Your task to perform on an android device: turn pop-ups off in chrome Image 0: 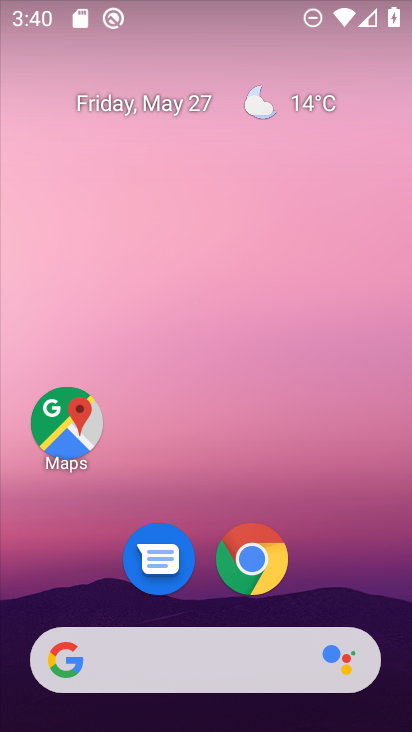
Step 0: drag from (338, 591) to (296, 141)
Your task to perform on an android device: turn pop-ups off in chrome Image 1: 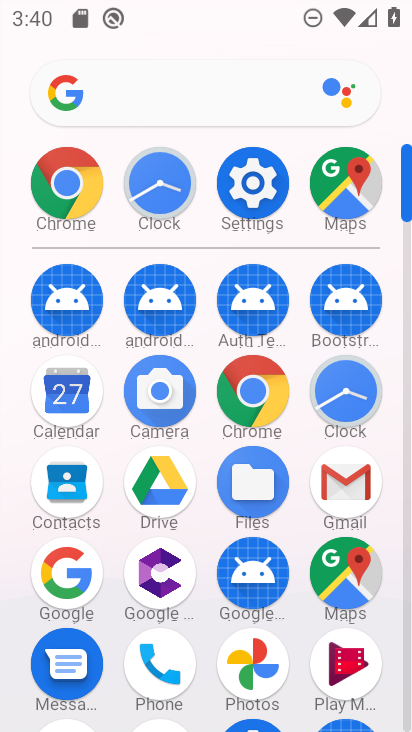
Step 1: click (41, 199)
Your task to perform on an android device: turn pop-ups off in chrome Image 2: 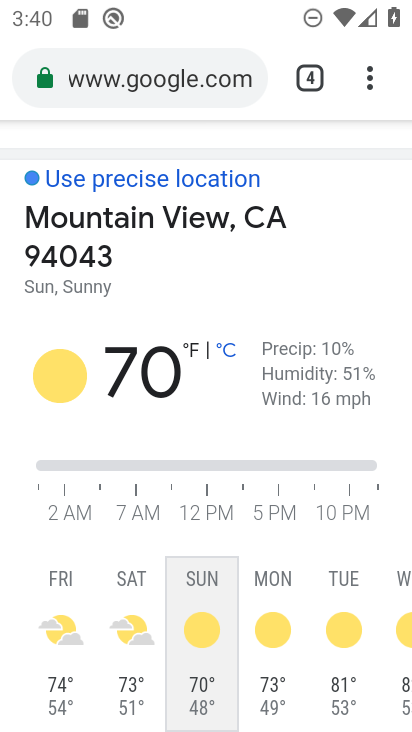
Step 2: click (376, 79)
Your task to perform on an android device: turn pop-ups off in chrome Image 3: 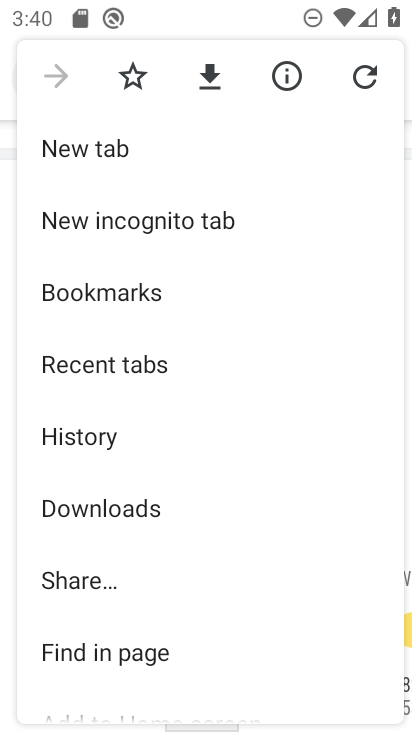
Step 3: drag from (211, 573) to (282, 229)
Your task to perform on an android device: turn pop-ups off in chrome Image 4: 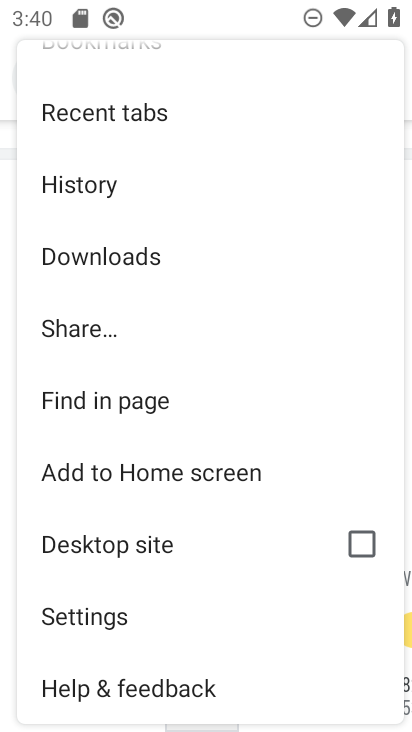
Step 4: click (103, 621)
Your task to perform on an android device: turn pop-ups off in chrome Image 5: 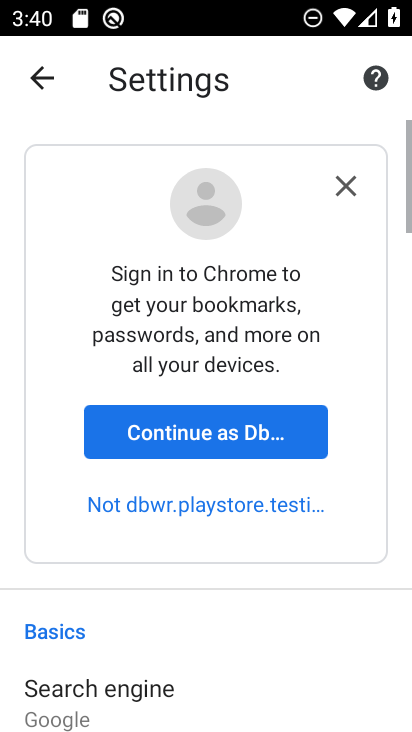
Step 5: drag from (272, 675) to (272, 249)
Your task to perform on an android device: turn pop-ups off in chrome Image 6: 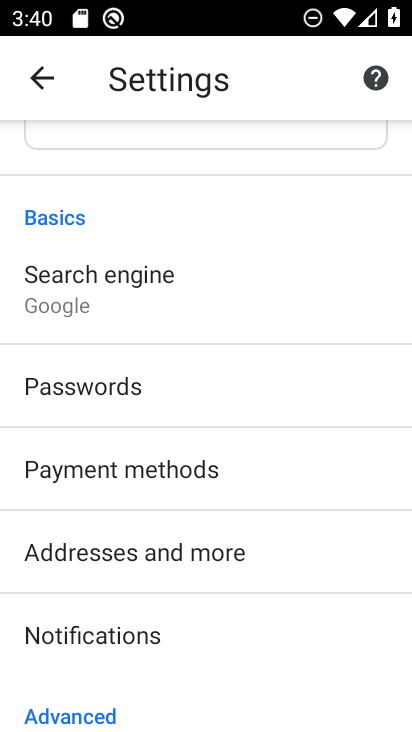
Step 6: drag from (275, 668) to (266, 210)
Your task to perform on an android device: turn pop-ups off in chrome Image 7: 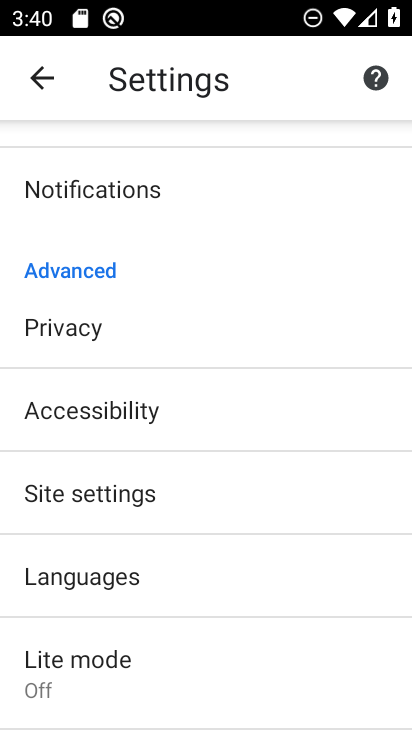
Step 7: drag from (211, 652) to (237, 192)
Your task to perform on an android device: turn pop-ups off in chrome Image 8: 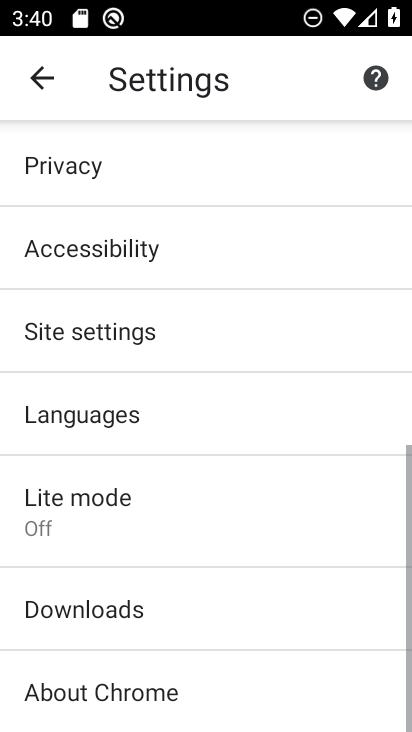
Step 8: click (196, 338)
Your task to perform on an android device: turn pop-ups off in chrome Image 9: 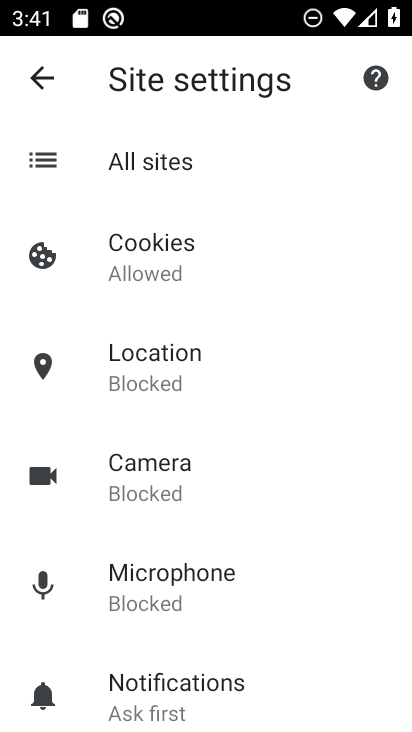
Step 9: drag from (271, 624) to (267, 231)
Your task to perform on an android device: turn pop-ups off in chrome Image 10: 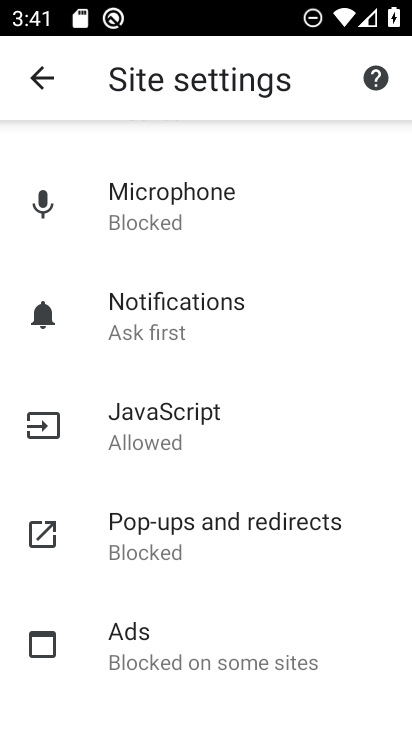
Step 10: click (183, 532)
Your task to perform on an android device: turn pop-ups off in chrome Image 11: 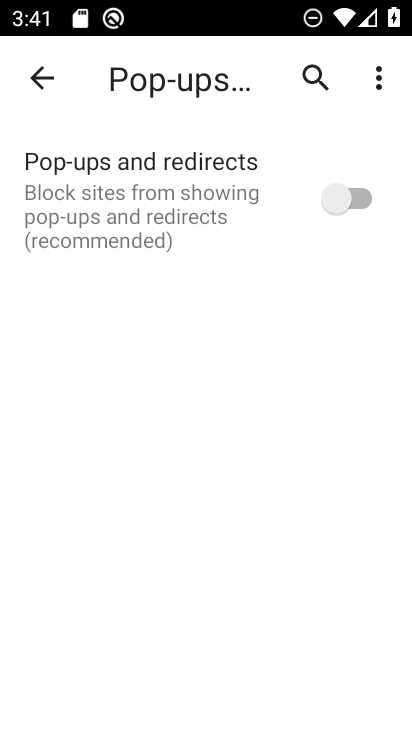
Step 11: click (37, 72)
Your task to perform on an android device: turn pop-ups off in chrome Image 12: 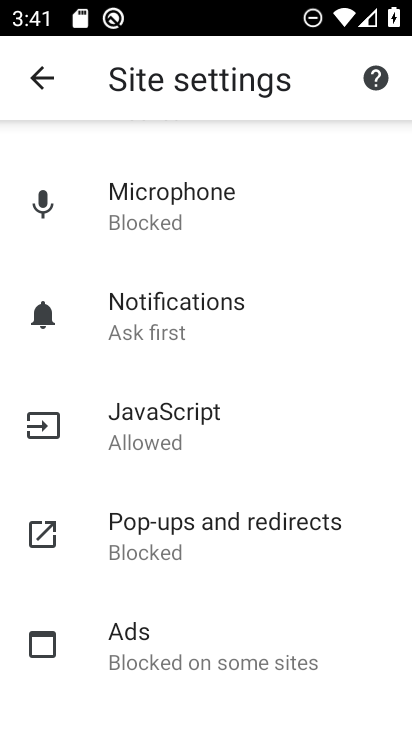
Step 12: click (142, 539)
Your task to perform on an android device: turn pop-ups off in chrome Image 13: 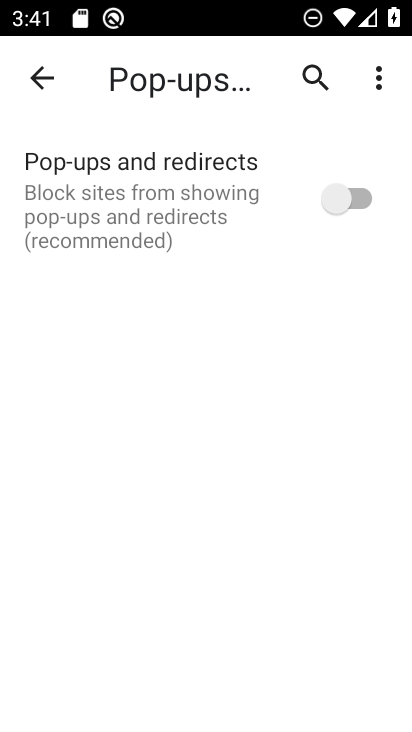
Step 13: click (358, 202)
Your task to perform on an android device: turn pop-ups off in chrome Image 14: 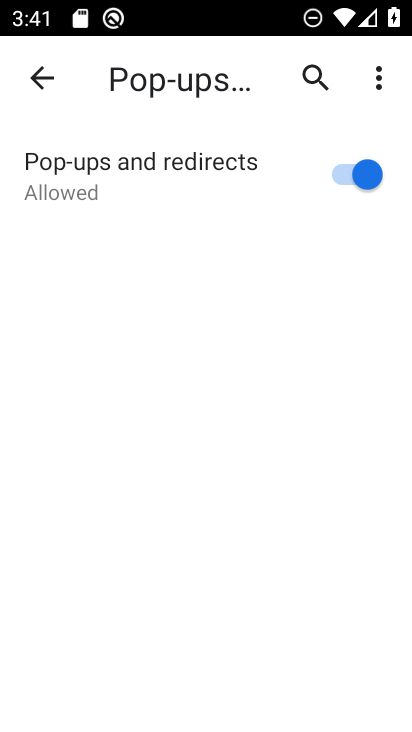
Step 14: task complete